Your task to perform on an android device: Go to wifi settings Image 0: 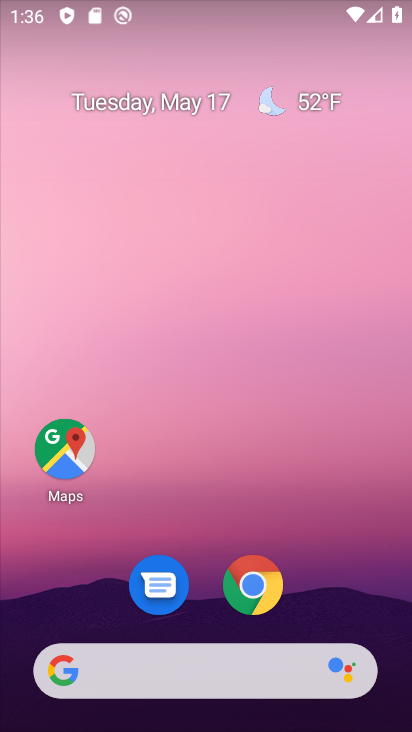
Step 0: drag from (316, 506) to (310, 44)
Your task to perform on an android device: Go to wifi settings Image 1: 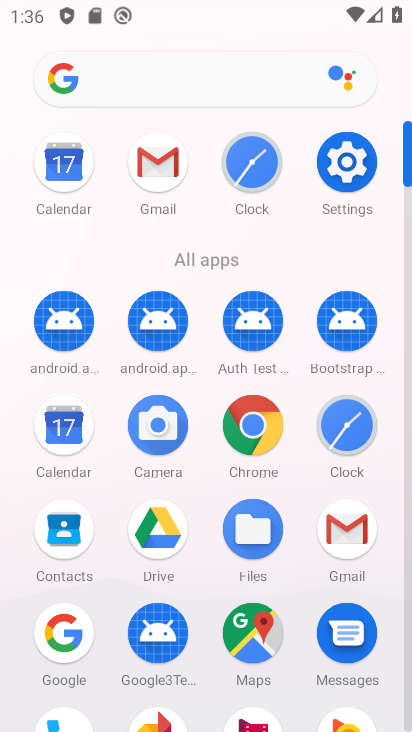
Step 1: click (342, 156)
Your task to perform on an android device: Go to wifi settings Image 2: 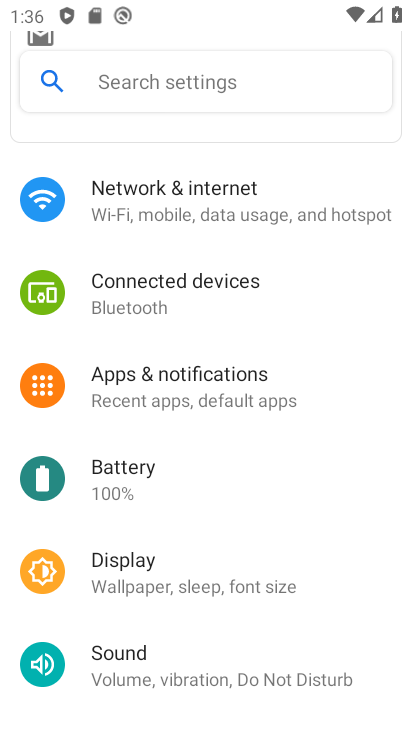
Step 2: click (268, 197)
Your task to perform on an android device: Go to wifi settings Image 3: 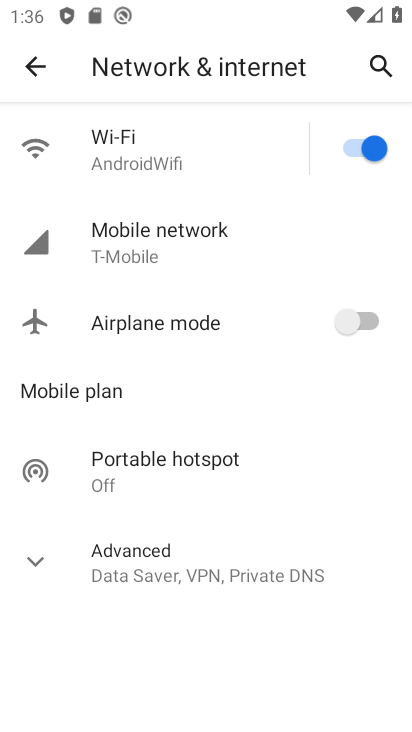
Step 3: click (207, 147)
Your task to perform on an android device: Go to wifi settings Image 4: 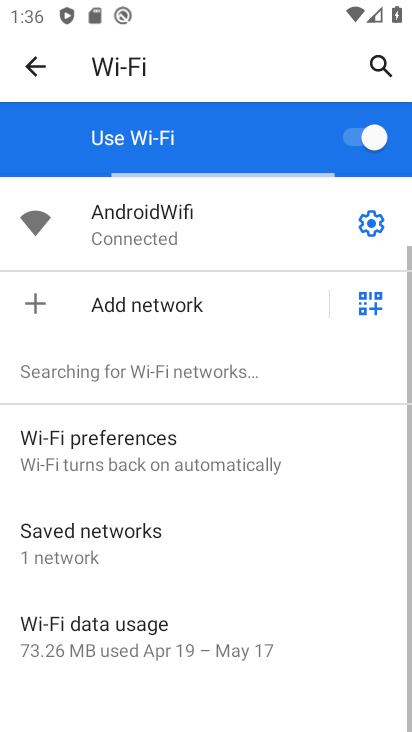
Step 4: task complete